Your task to perform on an android device: visit the assistant section in the google photos Image 0: 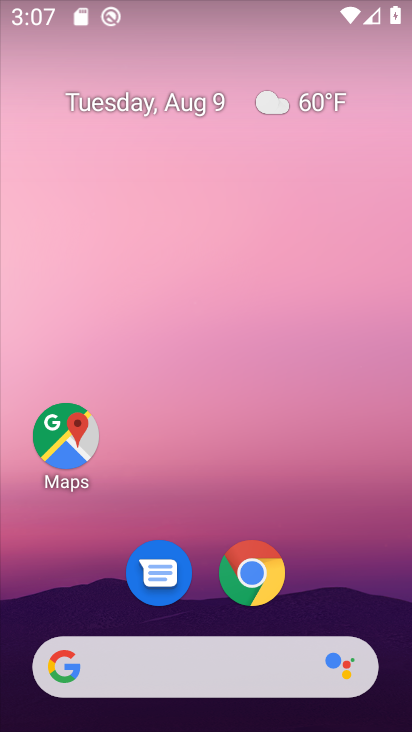
Step 0: drag from (329, 558) to (411, 534)
Your task to perform on an android device: visit the assistant section in the google photos Image 1: 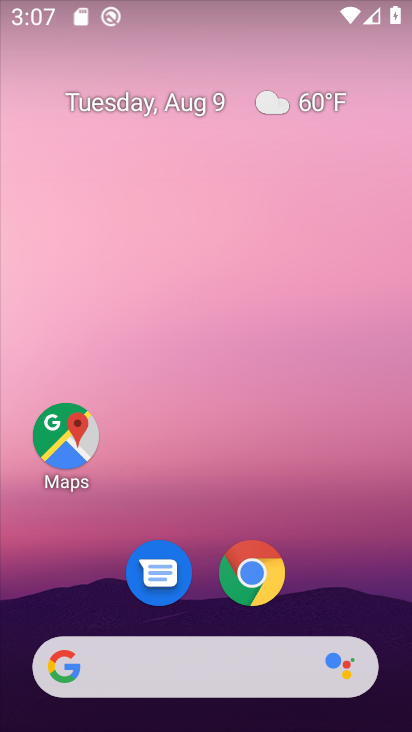
Step 1: drag from (362, 542) to (84, 97)
Your task to perform on an android device: visit the assistant section in the google photos Image 2: 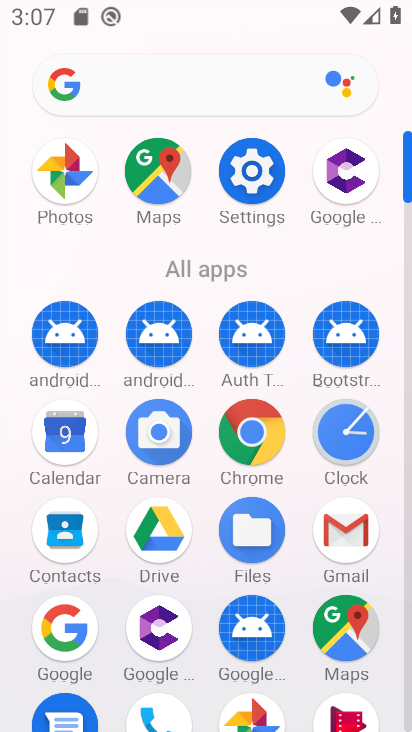
Step 2: click (259, 723)
Your task to perform on an android device: visit the assistant section in the google photos Image 3: 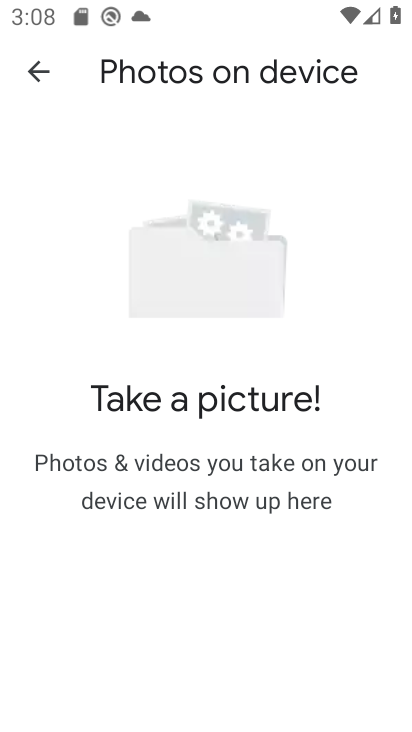
Step 3: click (29, 67)
Your task to perform on an android device: visit the assistant section in the google photos Image 4: 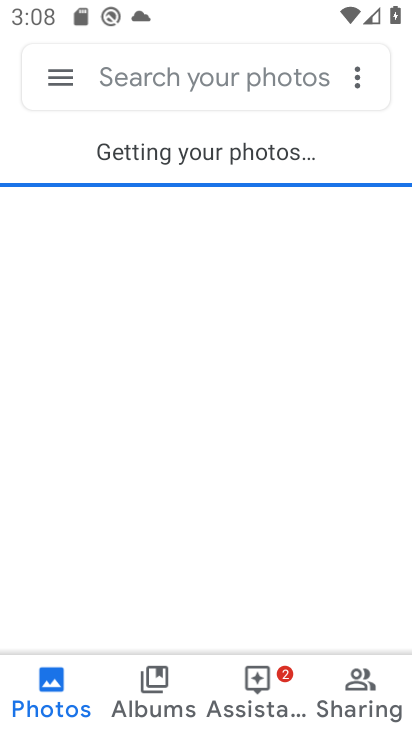
Step 4: click (253, 682)
Your task to perform on an android device: visit the assistant section in the google photos Image 5: 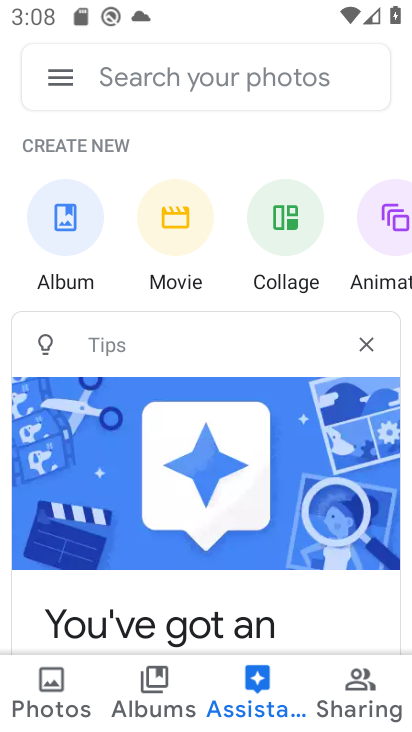
Step 5: task complete